Your task to perform on an android device: Show the shopping cart on ebay. Image 0: 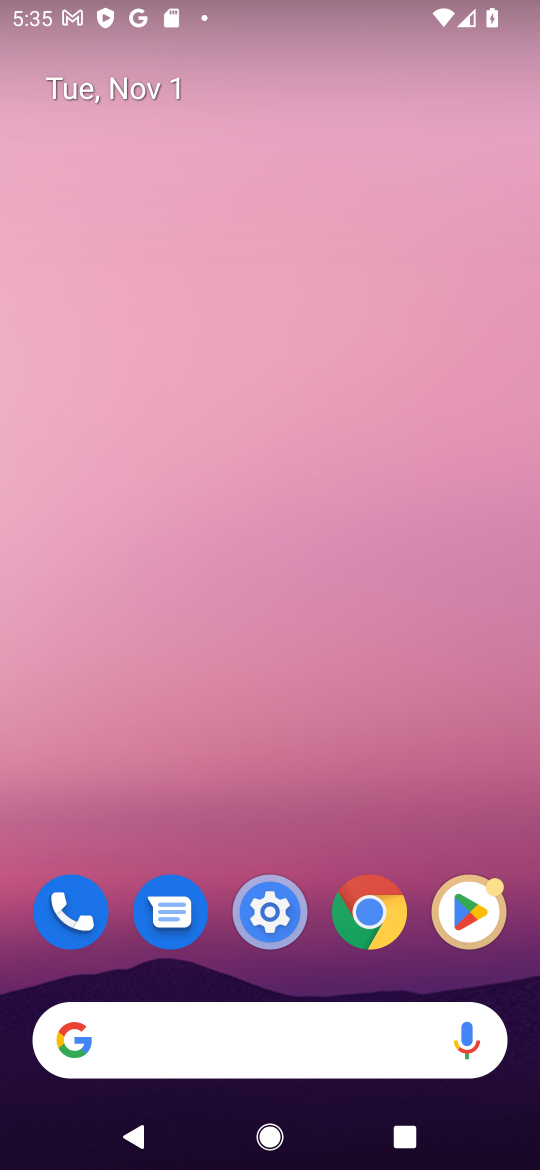
Step 0: click (357, 923)
Your task to perform on an android device: Show the shopping cart on ebay. Image 1: 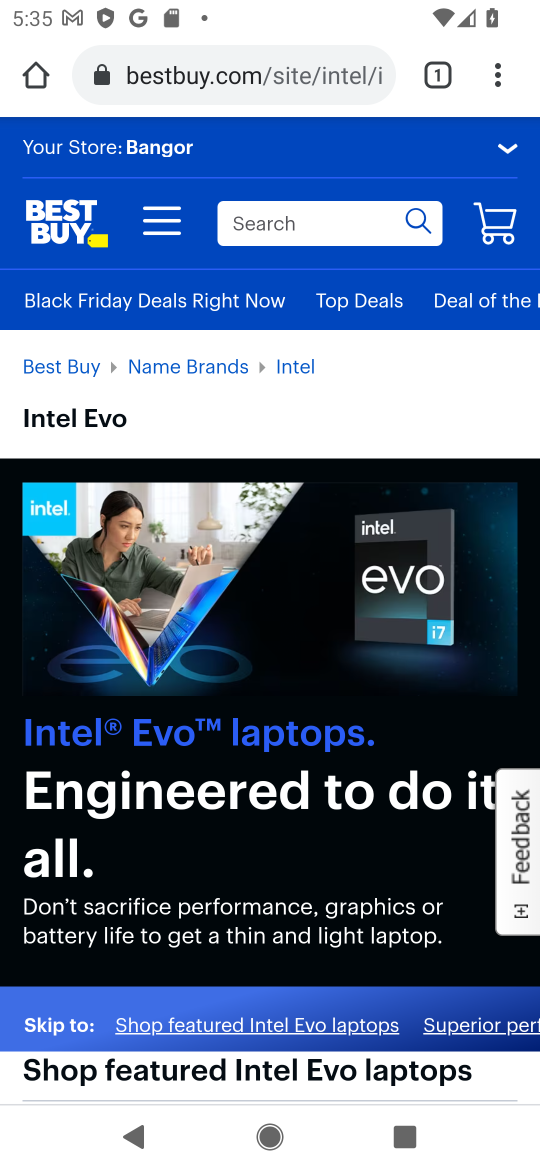
Step 1: click (303, 76)
Your task to perform on an android device: Show the shopping cart on ebay. Image 2: 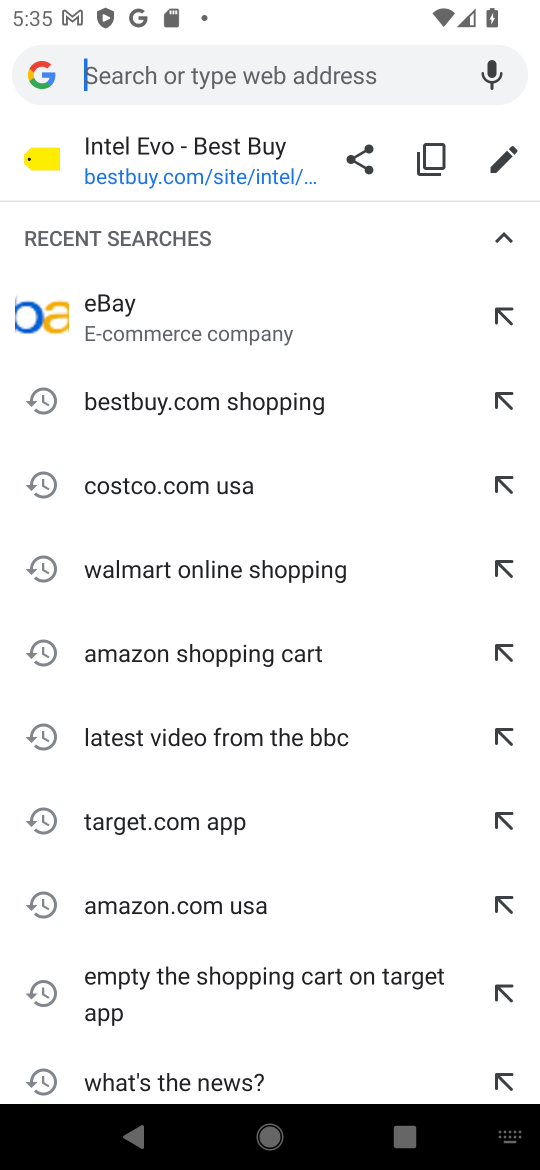
Step 2: type "ebay"
Your task to perform on an android device: Show the shopping cart on ebay. Image 3: 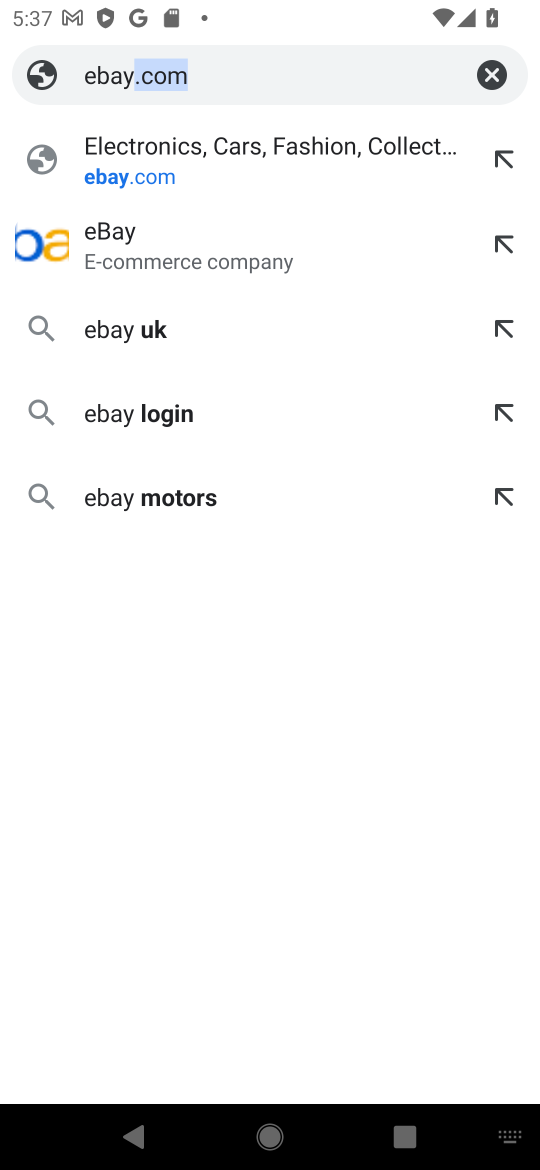
Step 3: click (167, 136)
Your task to perform on an android device: Show the shopping cart on ebay. Image 4: 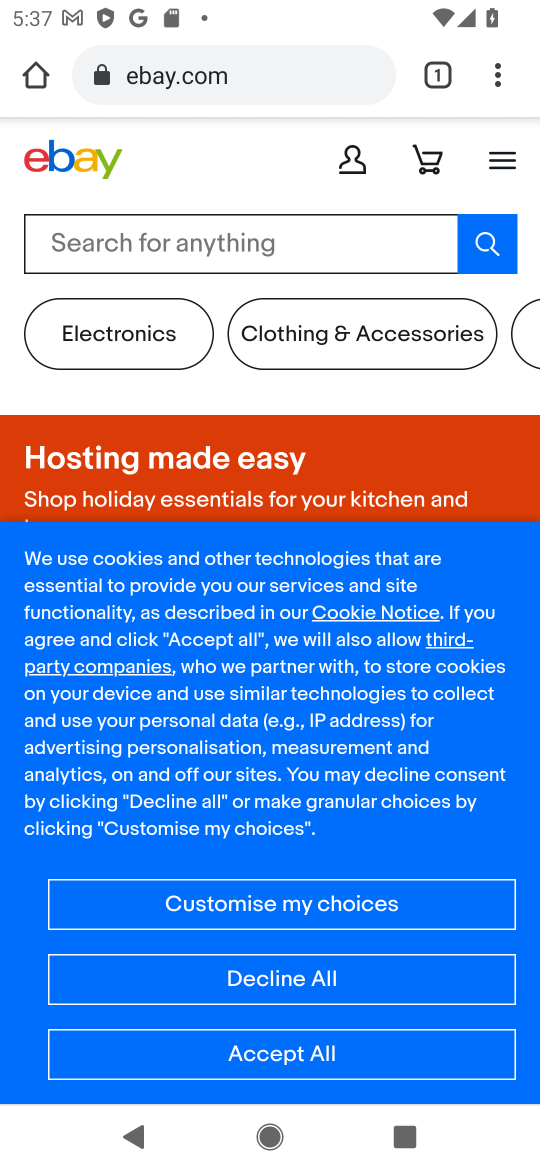
Step 4: click (424, 158)
Your task to perform on an android device: Show the shopping cart on ebay. Image 5: 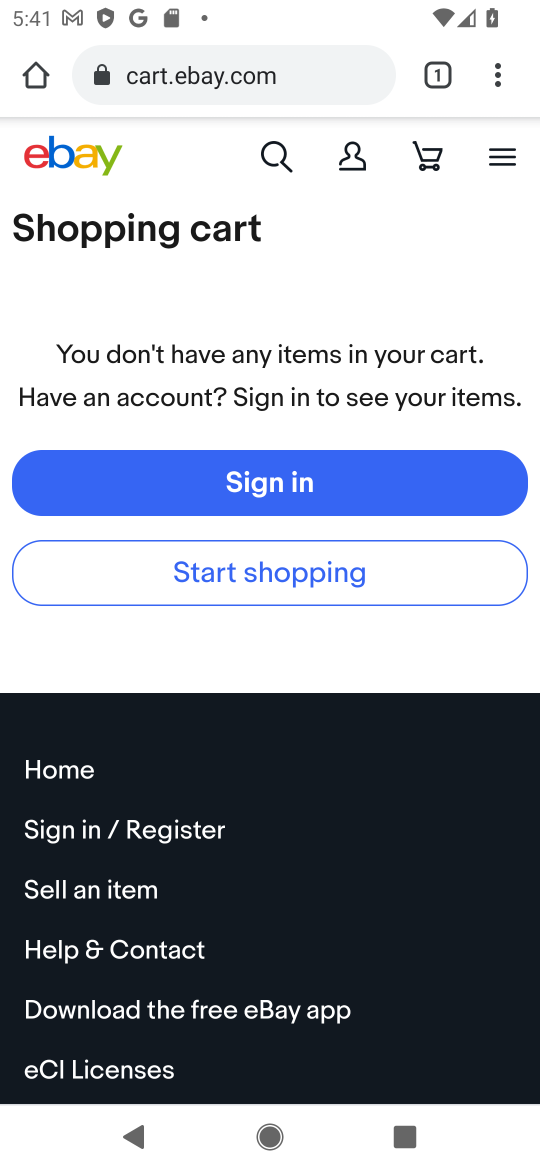
Step 5: task complete